Your task to perform on an android device: Search for seafood restaurants on Google Maps Image 0: 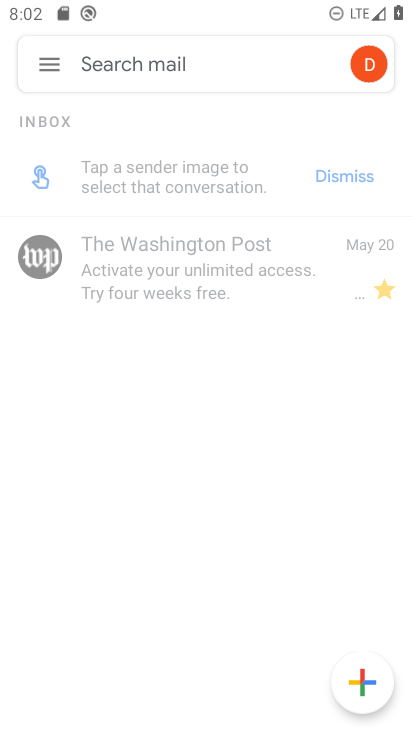
Step 0: press home button
Your task to perform on an android device: Search for seafood restaurants on Google Maps Image 1: 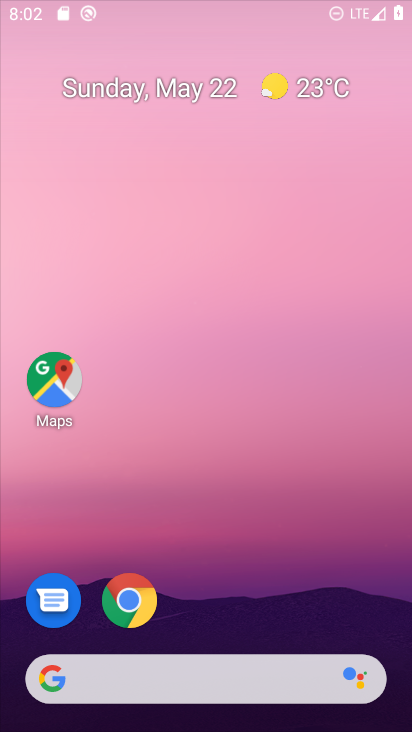
Step 1: drag from (342, 611) to (262, 68)
Your task to perform on an android device: Search for seafood restaurants on Google Maps Image 2: 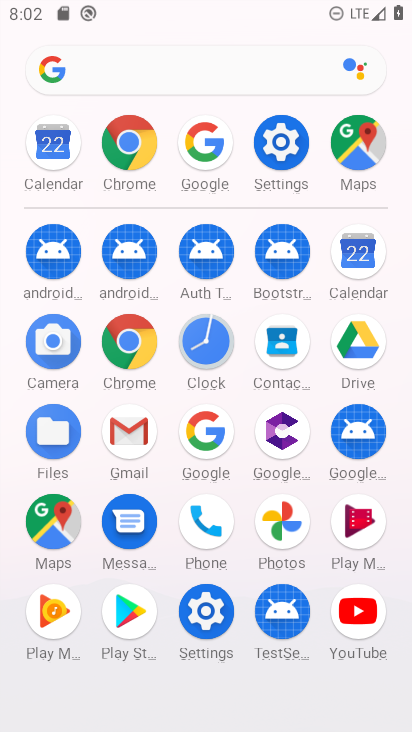
Step 2: click (369, 164)
Your task to perform on an android device: Search for seafood restaurants on Google Maps Image 3: 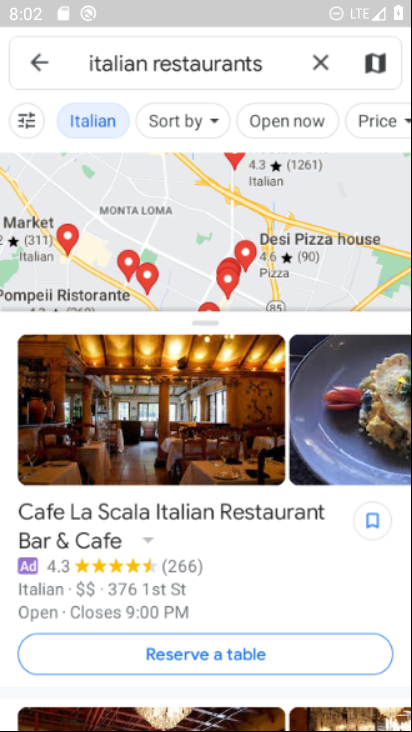
Step 3: click (315, 52)
Your task to perform on an android device: Search for seafood restaurants on Google Maps Image 4: 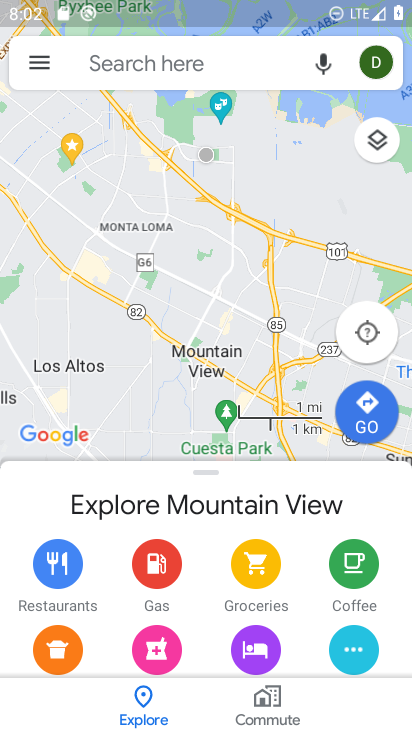
Step 4: click (140, 63)
Your task to perform on an android device: Search for seafood restaurants on Google Maps Image 5: 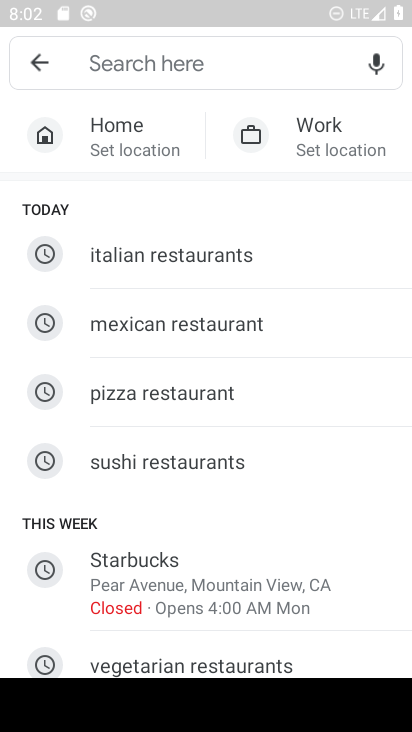
Step 5: type "seafood restaurants"
Your task to perform on an android device: Search for seafood restaurants on Google Maps Image 6: 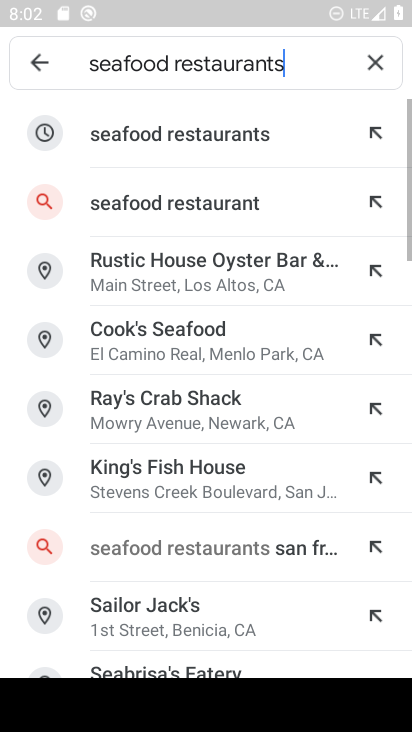
Step 6: click (239, 127)
Your task to perform on an android device: Search for seafood restaurants on Google Maps Image 7: 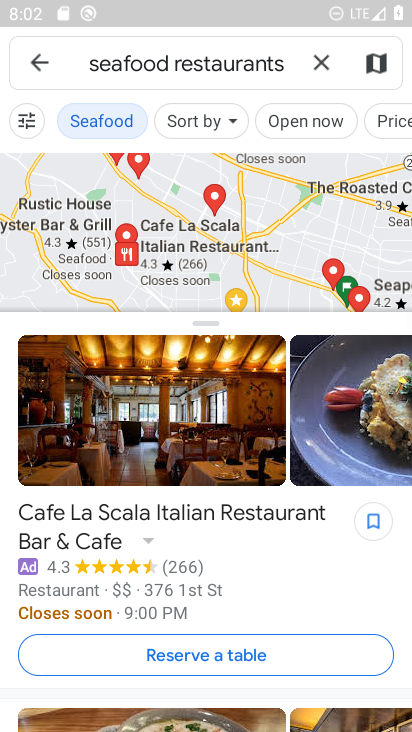
Step 7: task complete